Your task to perform on an android device: Open the calendar and show me this week's events Image 0: 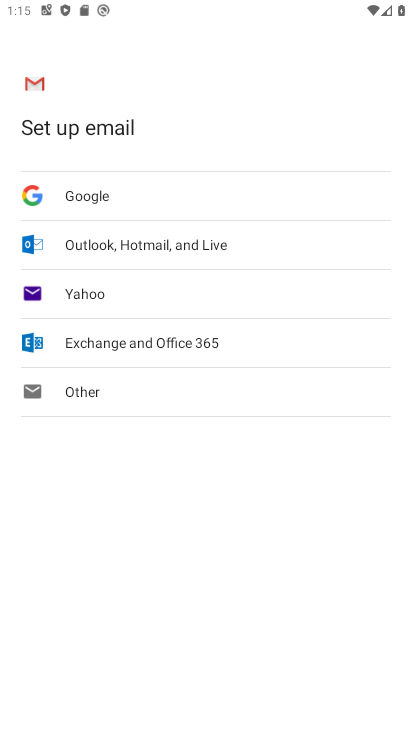
Step 0: press home button
Your task to perform on an android device: Open the calendar and show me this week's events Image 1: 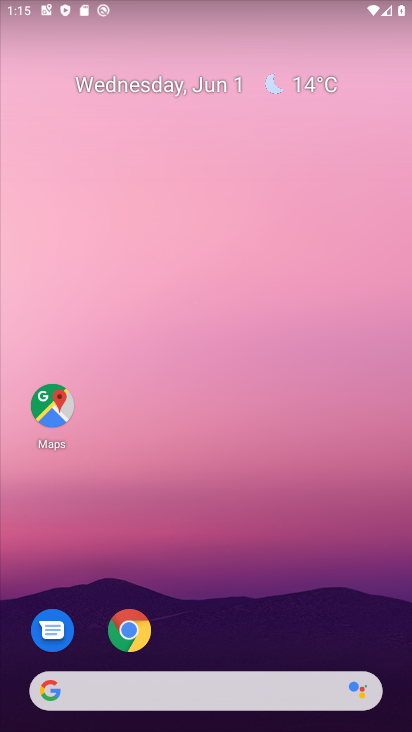
Step 1: drag from (216, 655) to (228, 49)
Your task to perform on an android device: Open the calendar and show me this week's events Image 2: 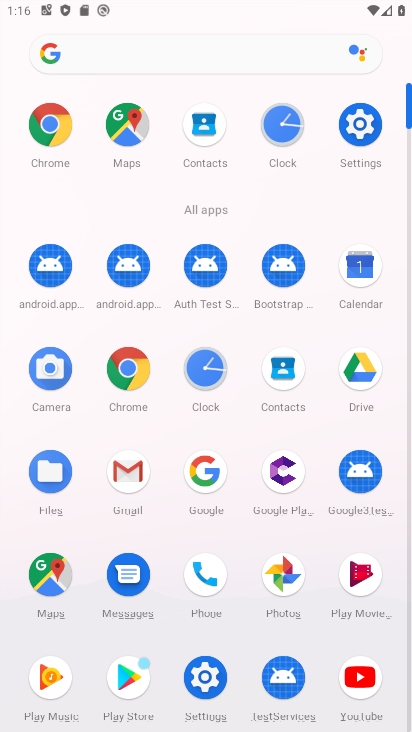
Step 2: click (360, 262)
Your task to perform on an android device: Open the calendar and show me this week's events Image 3: 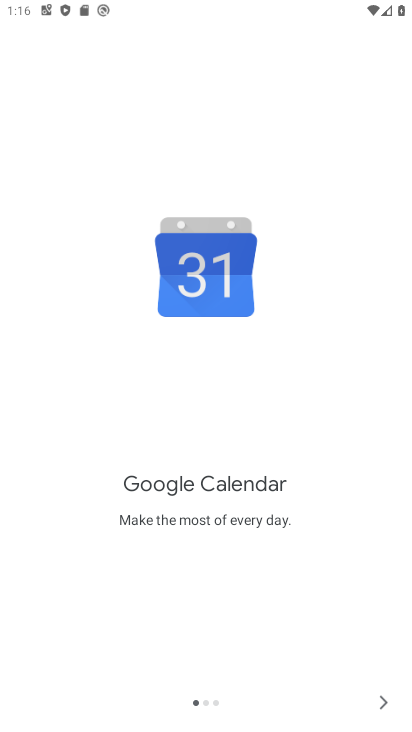
Step 3: click (383, 698)
Your task to perform on an android device: Open the calendar and show me this week's events Image 4: 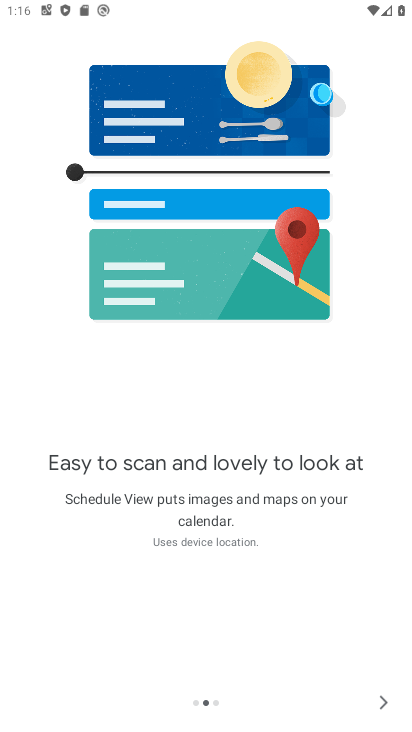
Step 4: click (383, 698)
Your task to perform on an android device: Open the calendar and show me this week's events Image 5: 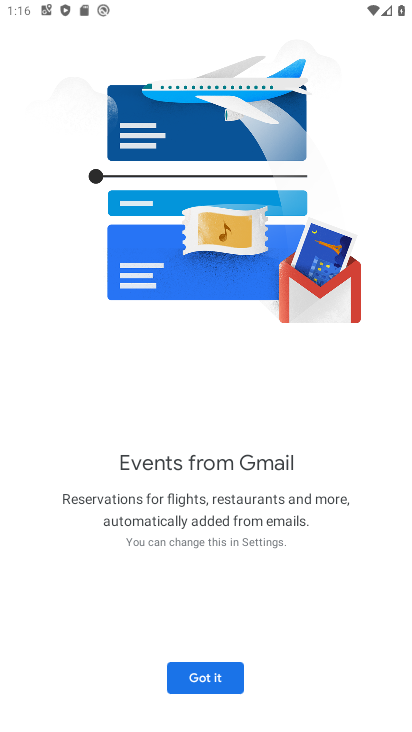
Step 5: click (207, 681)
Your task to perform on an android device: Open the calendar and show me this week's events Image 6: 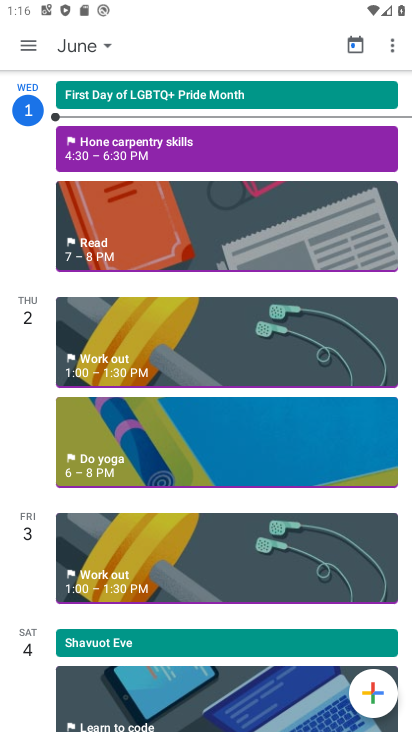
Step 6: task complete